Your task to perform on an android device: turn off data saver in the chrome app Image 0: 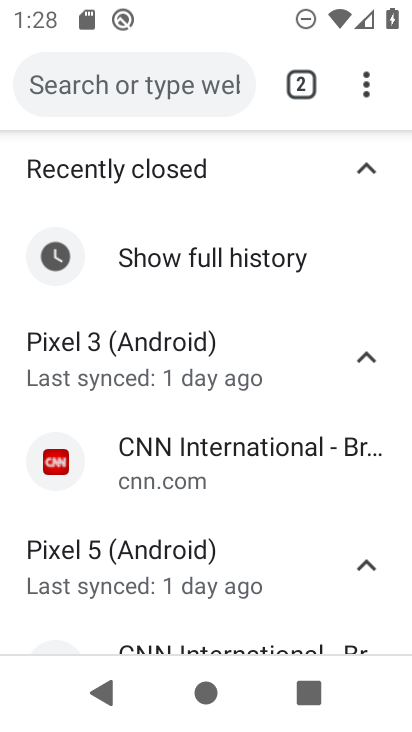
Step 0: click (381, 73)
Your task to perform on an android device: turn off data saver in the chrome app Image 1: 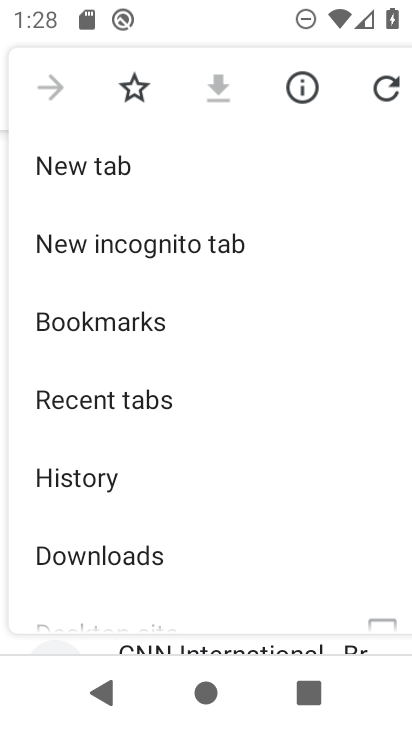
Step 1: drag from (94, 586) to (199, 156)
Your task to perform on an android device: turn off data saver in the chrome app Image 2: 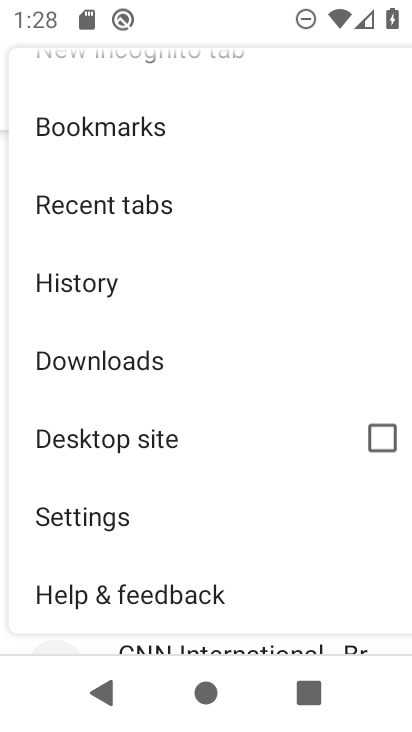
Step 2: click (69, 532)
Your task to perform on an android device: turn off data saver in the chrome app Image 3: 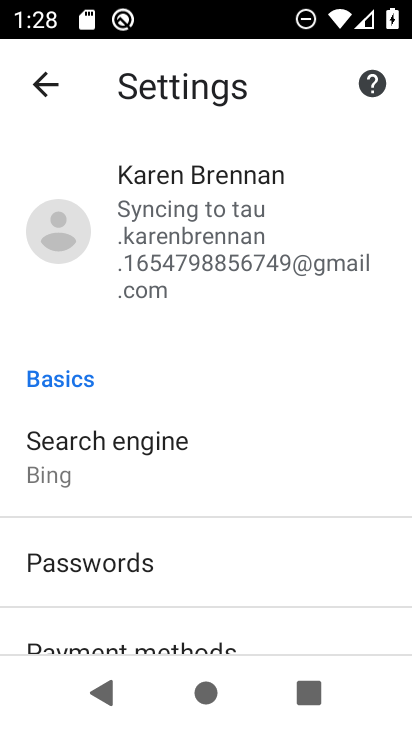
Step 3: drag from (146, 637) to (208, 84)
Your task to perform on an android device: turn off data saver in the chrome app Image 4: 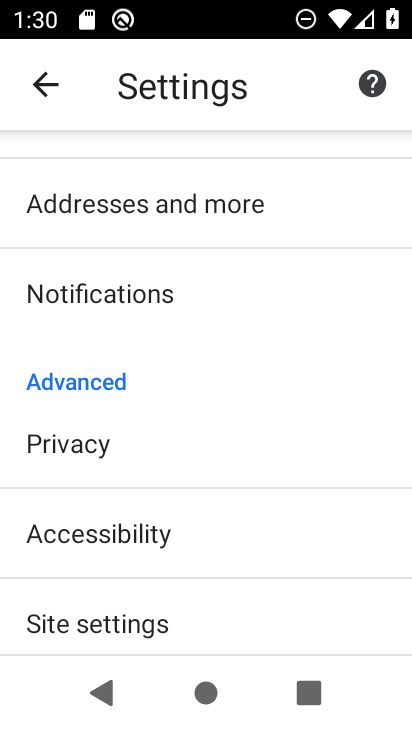
Step 4: press home button
Your task to perform on an android device: turn off data saver in the chrome app Image 5: 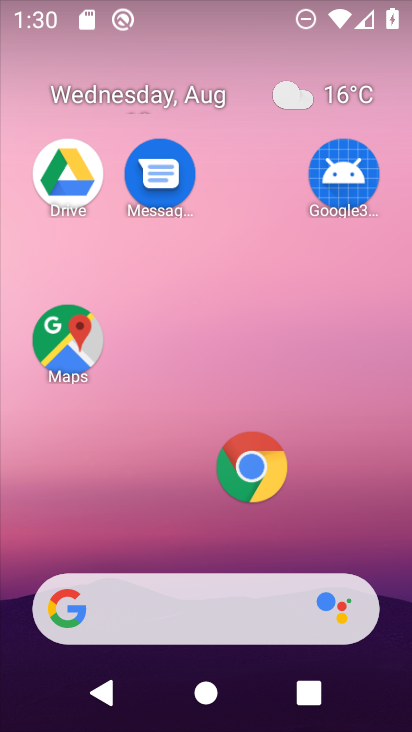
Step 5: click (234, 469)
Your task to perform on an android device: turn off data saver in the chrome app Image 6: 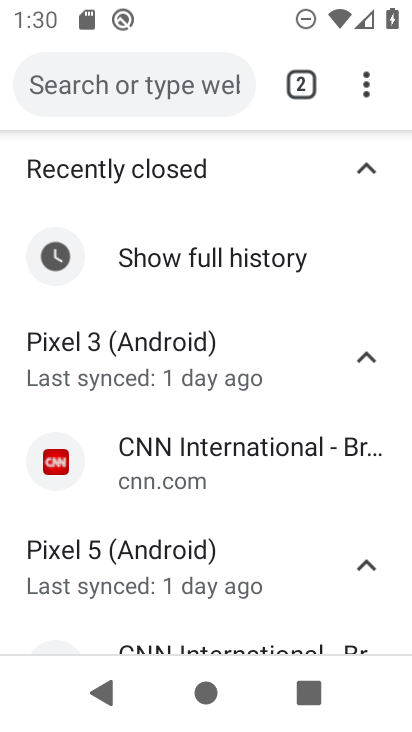
Step 6: click (372, 83)
Your task to perform on an android device: turn off data saver in the chrome app Image 7: 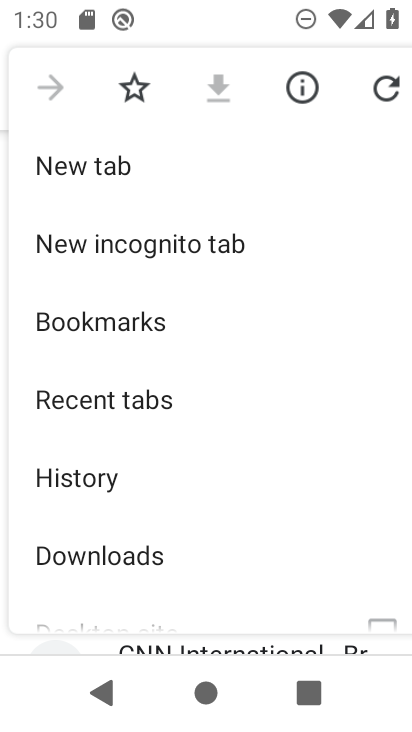
Step 7: drag from (157, 613) to (198, 343)
Your task to perform on an android device: turn off data saver in the chrome app Image 8: 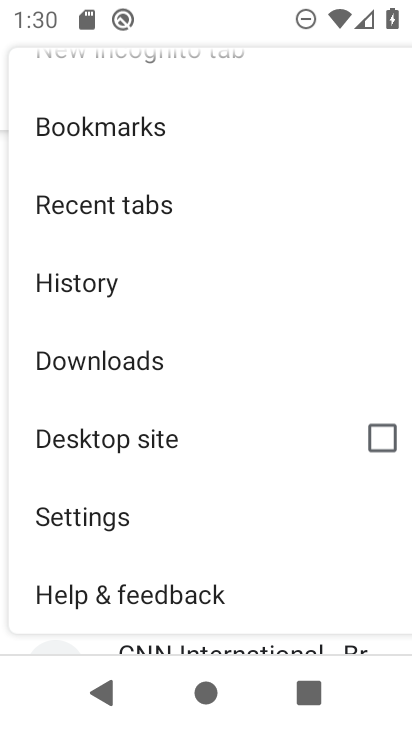
Step 8: drag from (247, 141) to (334, 459)
Your task to perform on an android device: turn off data saver in the chrome app Image 9: 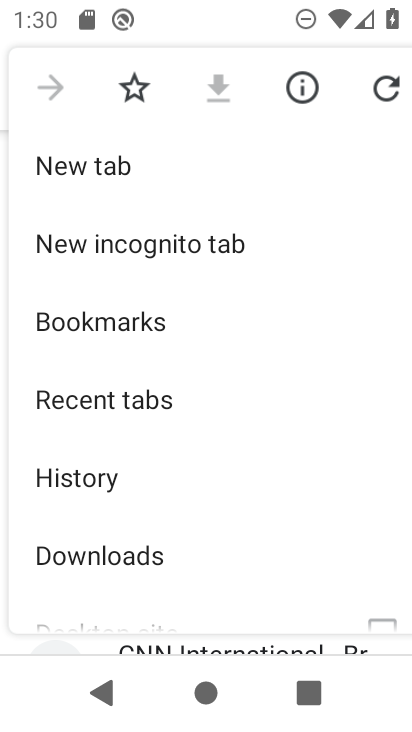
Step 9: drag from (137, 578) to (184, 208)
Your task to perform on an android device: turn off data saver in the chrome app Image 10: 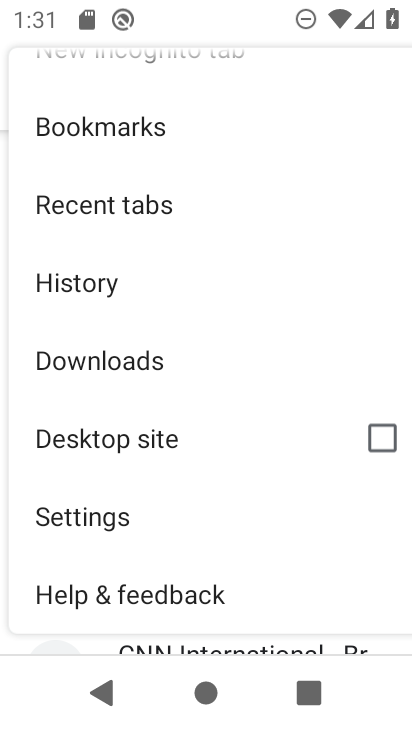
Step 10: click (141, 527)
Your task to perform on an android device: turn off data saver in the chrome app Image 11: 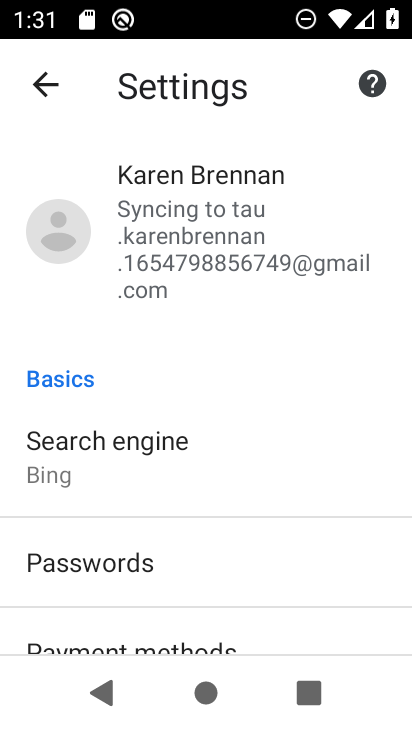
Step 11: drag from (125, 415) to (249, 112)
Your task to perform on an android device: turn off data saver in the chrome app Image 12: 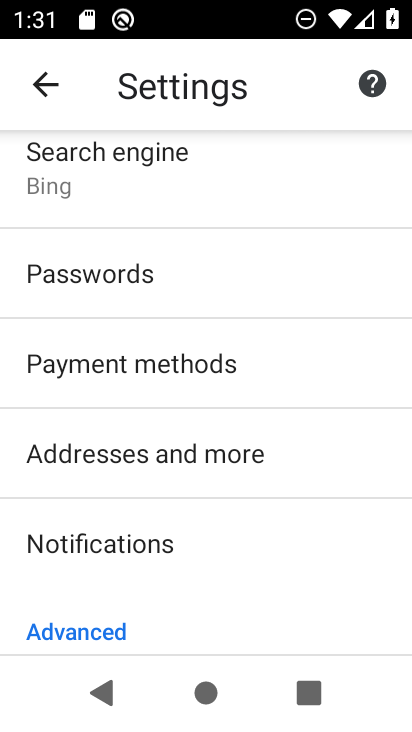
Step 12: drag from (299, 590) to (402, 256)
Your task to perform on an android device: turn off data saver in the chrome app Image 13: 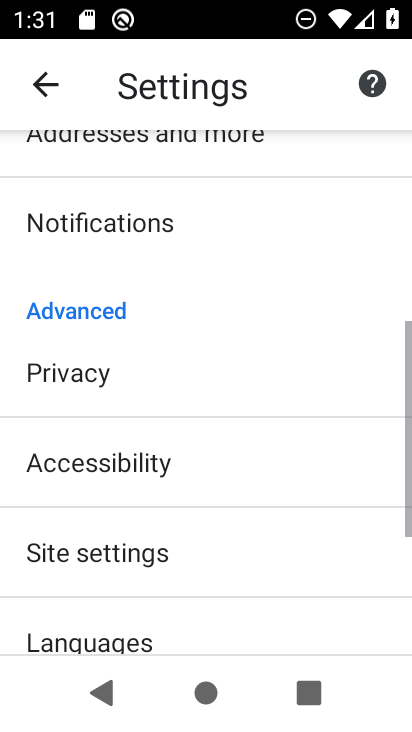
Step 13: drag from (201, 579) to (294, 240)
Your task to perform on an android device: turn off data saver in the chrome app Image 14: 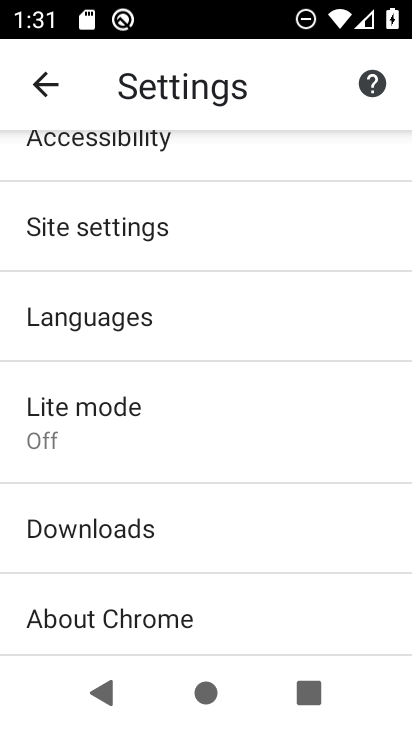
Step 14: click (298, 414)
Your task to perform on an android device: turn off data saver in the chrome app Image 15: 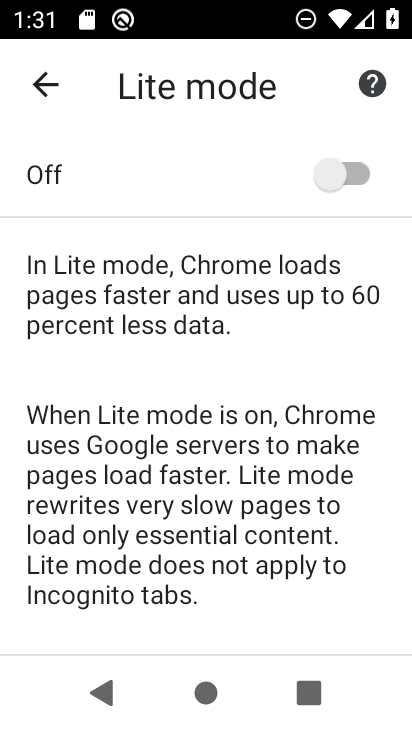
Step 15: task complete